Your task to perform on an android device: uninstall "Calculator" Image 0: 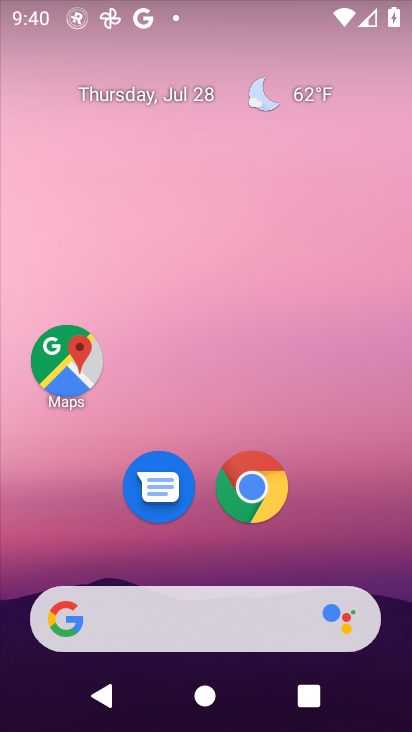
Step 0: drag from (251, 527) to (228, 201)
Your task to perform on an android device: uninstall "Calculator" Image 1: 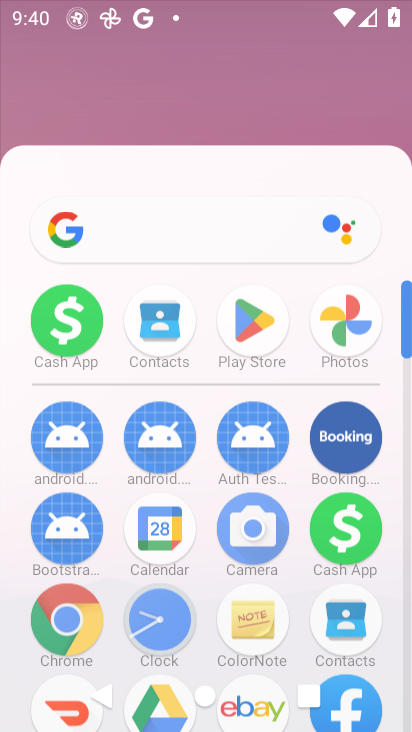
Step 1: drag from (226, 557) to (208, 278)
Your task to perform on an android device: uninstall "Calculator" Image 2: 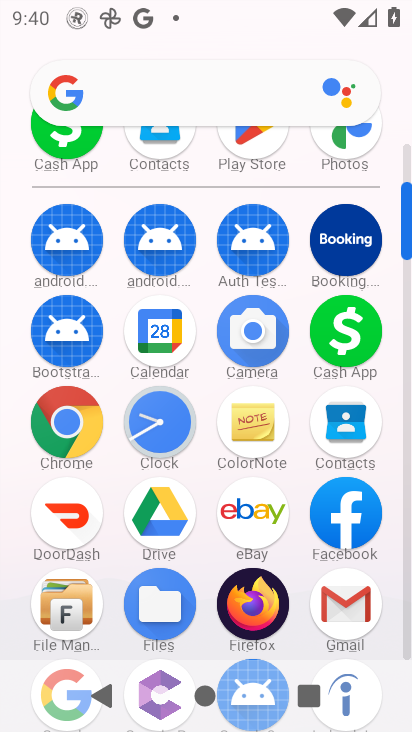
Step 2: drag from (189, 276) to (221, 443)
Your task to perform on an android device: uninstall "Calculator" Image 3: 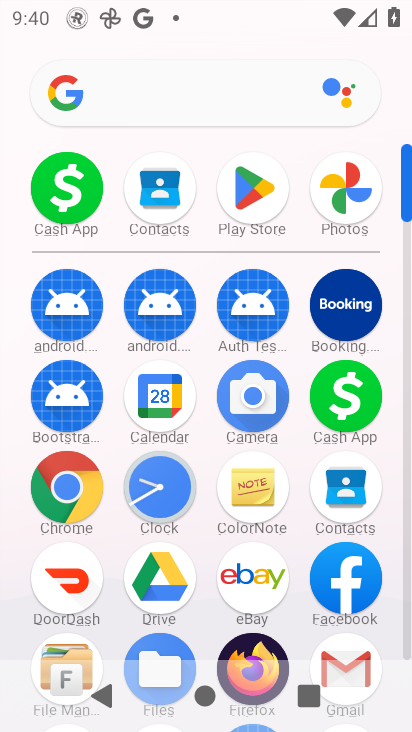
Step 3: drag from (210, 272) to (212, 426)
Your task to perform on an android device: uninstall "Calculator" Image 4: 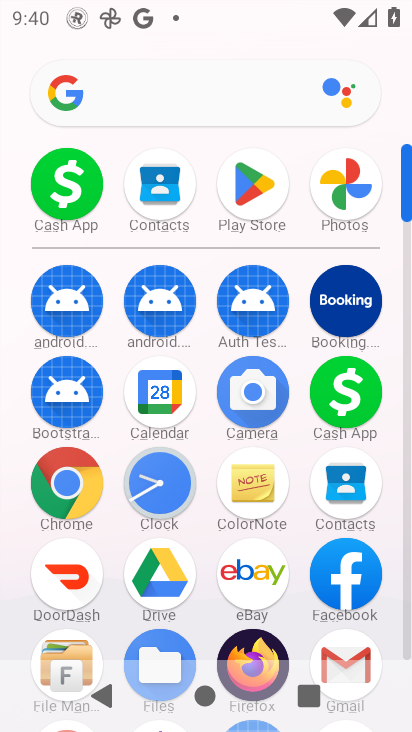
Step 4: click (258, 185)
Your task to perform on an android device: uninstall "Calculator" Image 5: 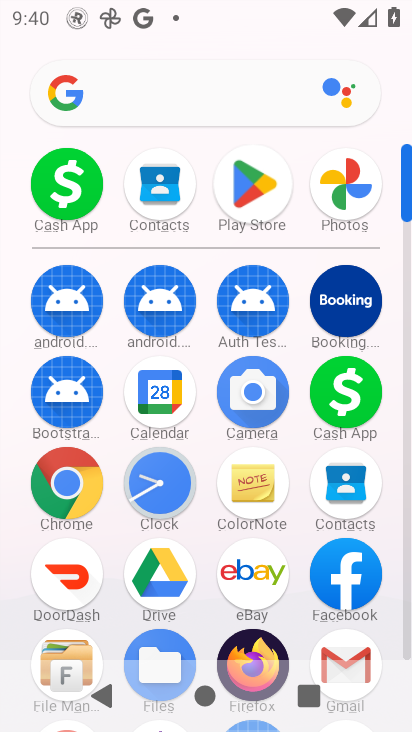
Step 5: click (257, 184)
Your task to perform on an android device: uninstall "Calculator" Image 6: 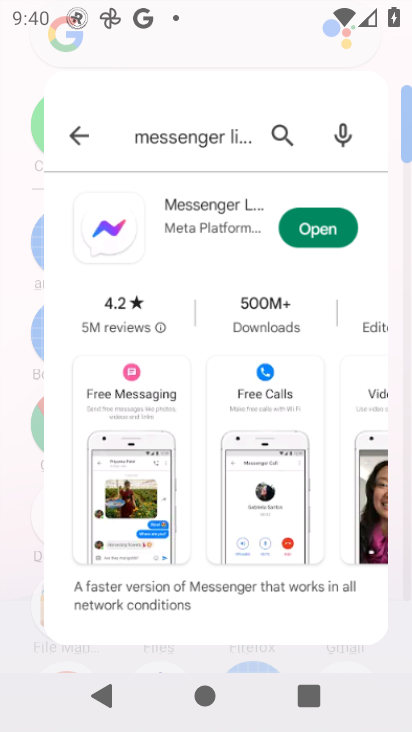
Step 6: click (257, 184)
Your task to perform on an android device: uninstall "Calculator" Image 7: 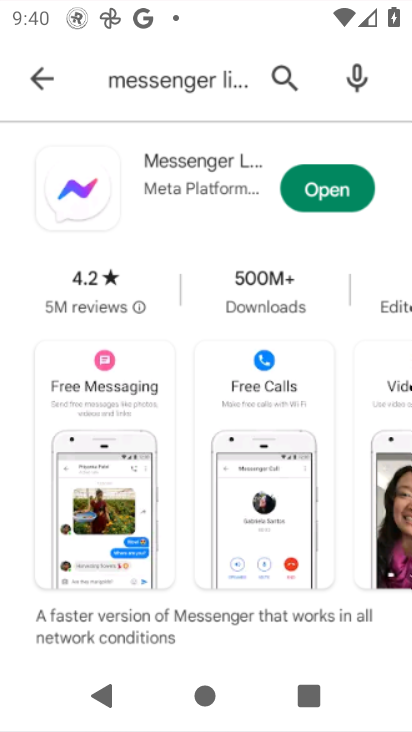
Step 7: click (257, 184)
Your task to perform on an android device: uninstall "Calculator" Image 8: 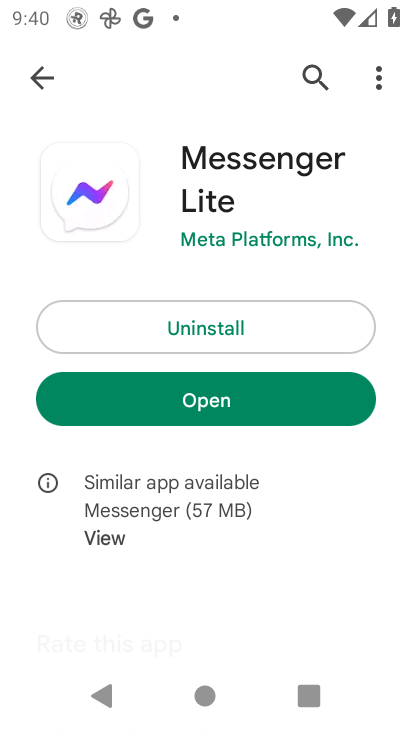
Step 8: click (43, 74)
Your task to perform on an android device: uninstall "Calculator" Image 9: 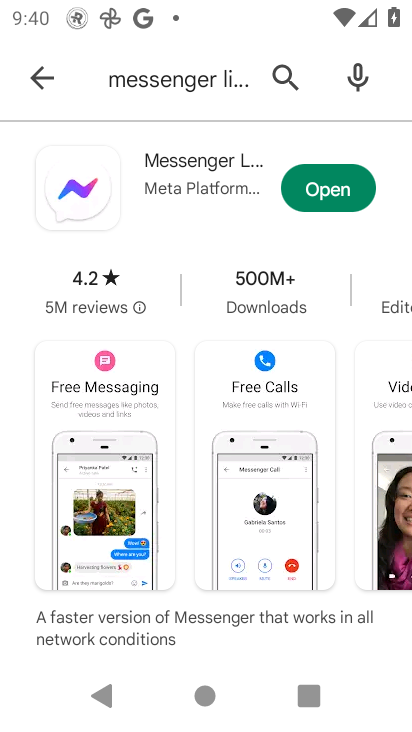
Step 9: click (28, 75)
Your task to perform on an android device: uninstall "Calculator" Image 10: 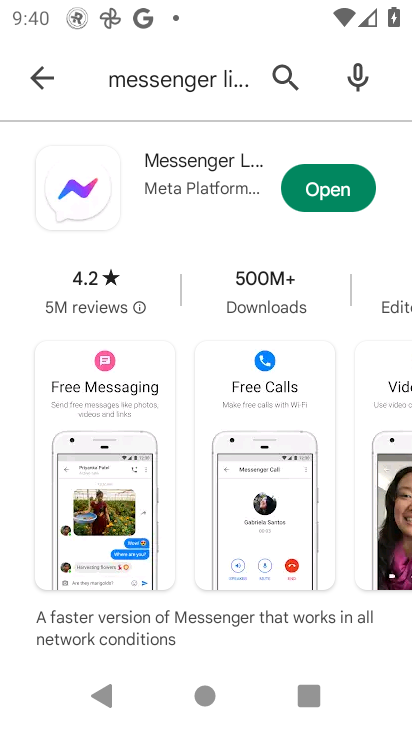
Step 10: click (29, 74)
Your task to perform on an android device: uninstall "Calculator" Image 11: 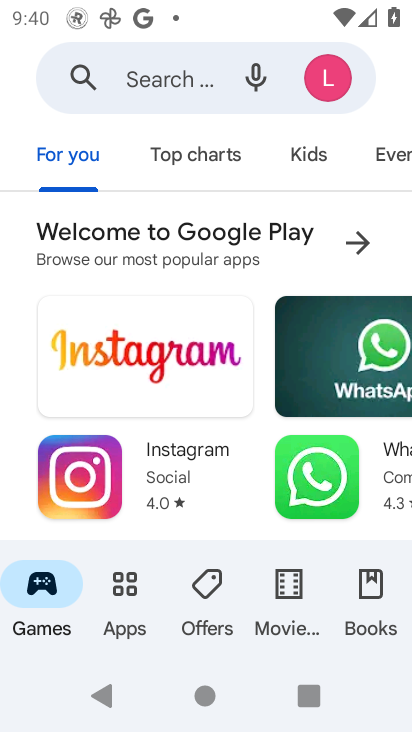
Step 11: click (138, 77)
Your task to perform on an android device: uninstall "Calculator" Image 12: 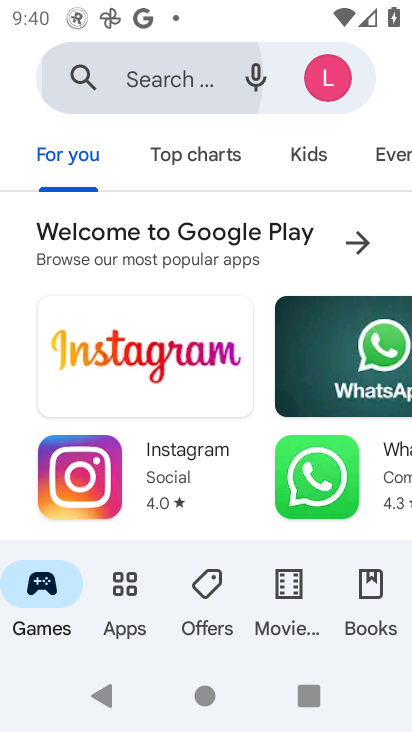
Step 12: click (136, 76)
Your task to perform on an android device: uninstall "Calculator" Image 13: 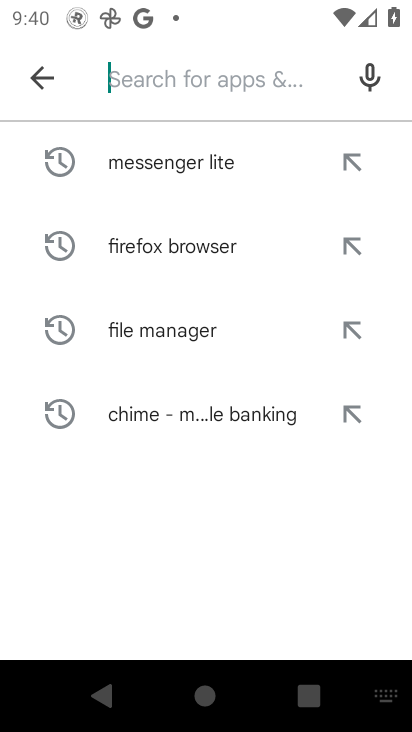
Step 13: type "Calculator"
Your task to perform on an android device: uninstall "Calculator" Image 14: 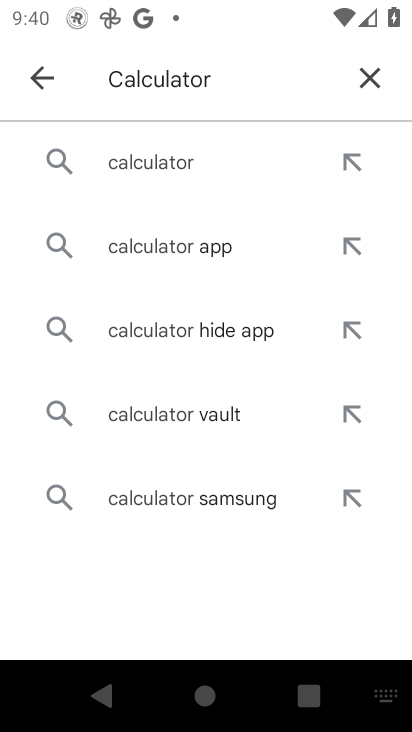
Step 14: click (159, 161)
Your task to perform on an android device: uninstall "Calculator" Image 15: 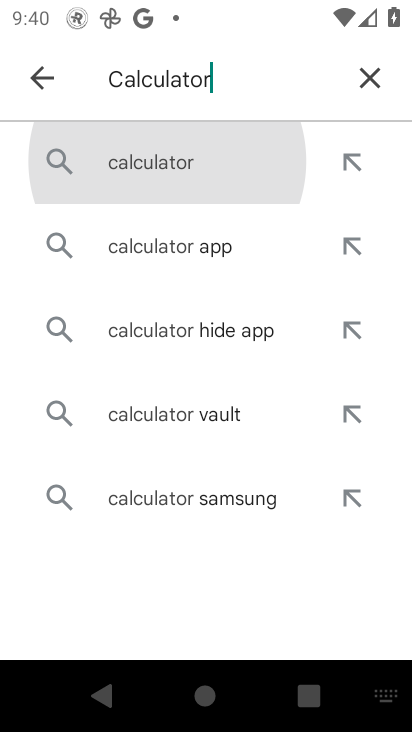
Step 15: click (159, 161)
Your task to perform on an android device: uninstall "Calculator" Image 16: 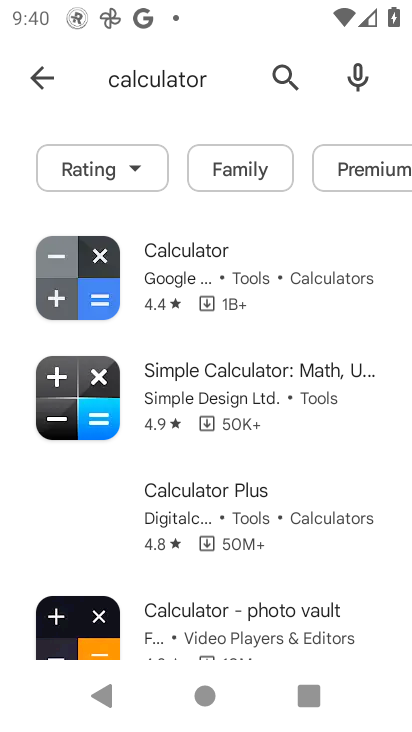
Step 16: task complete